Your task to perform on an android device: Open settings Image 0: 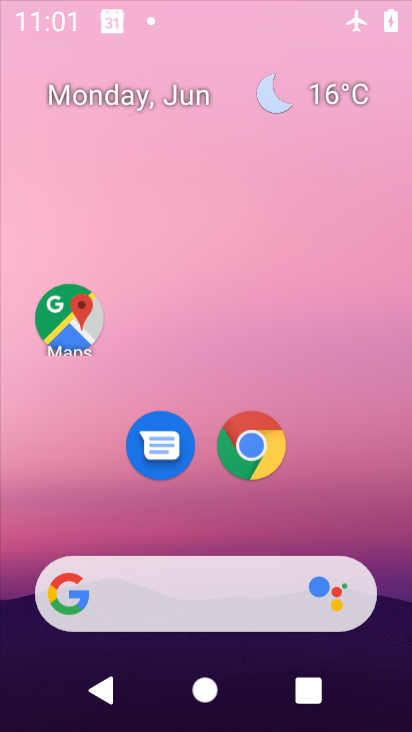
Step 0: press home button
Your task to perform on an android device: Open settings Image 1: 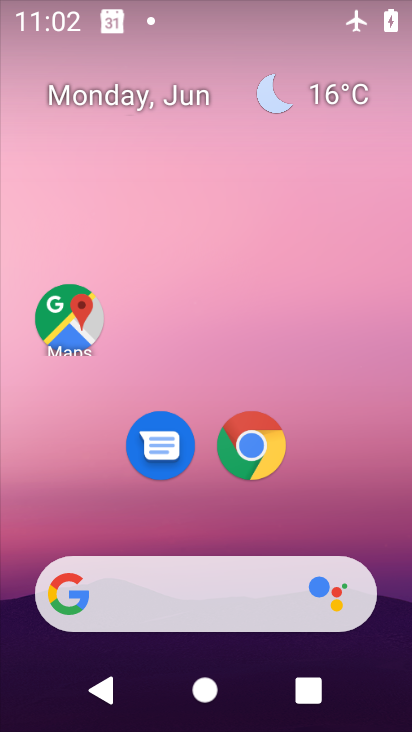
Step 1: drag from (266, 445) to (364, 3)
Your task to perform on an android device: Open settings Image 2: 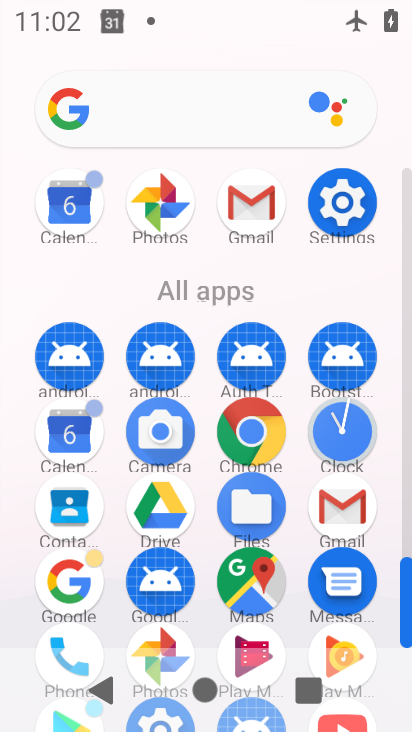
Step 2: click (337, 191)
Your task to perform on an android device: Open settings Image 3: 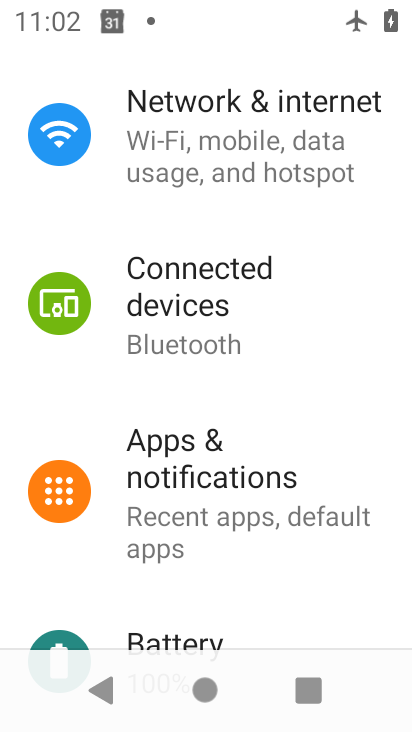
Step 3: task complete